Your task to perform on an android device: delete a single message in the gmail app Image 0: 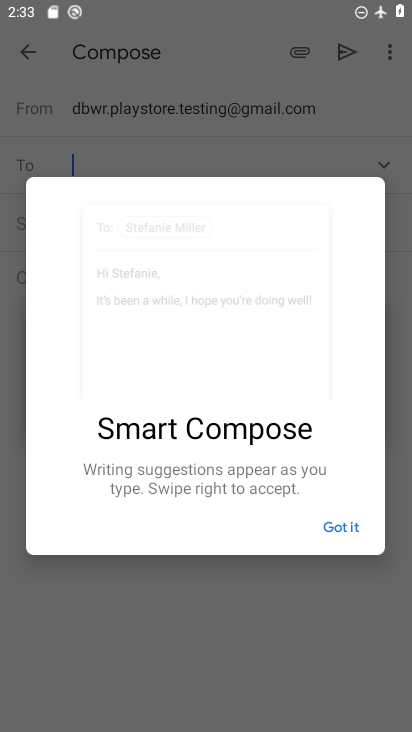
Step 0: press home button
Your task to perform on an android device: delete a single message in the gmail app Image 1: 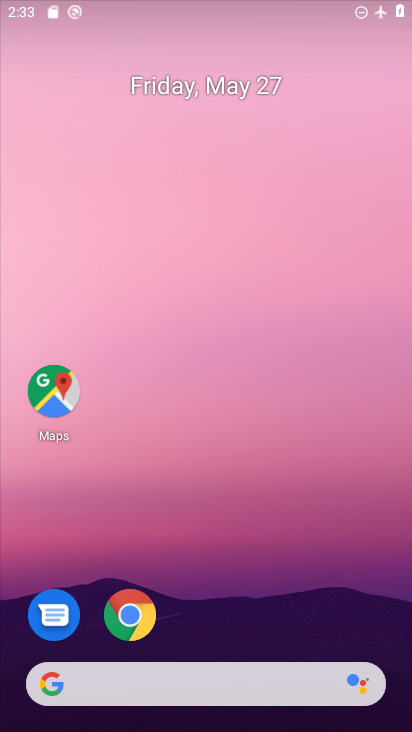
Step 1: drag from (240, 569) to (233, 116)
Your task to perform on an android device: delete a single message in the gmail app Image 2: 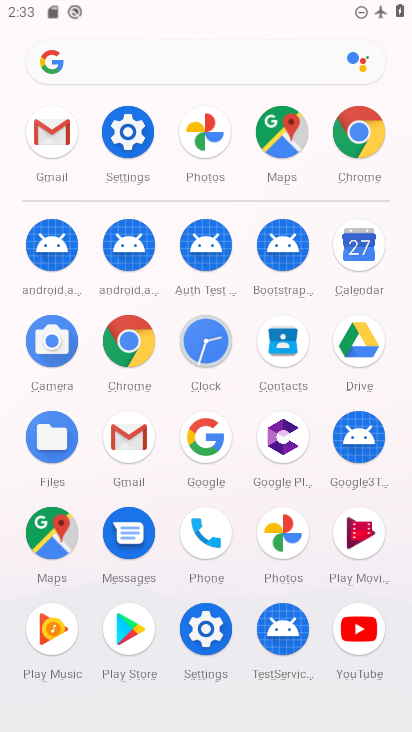
Step 2: click (137, 439)
Your task to perform on an android device: delete a single message in the gmail app Image 3: 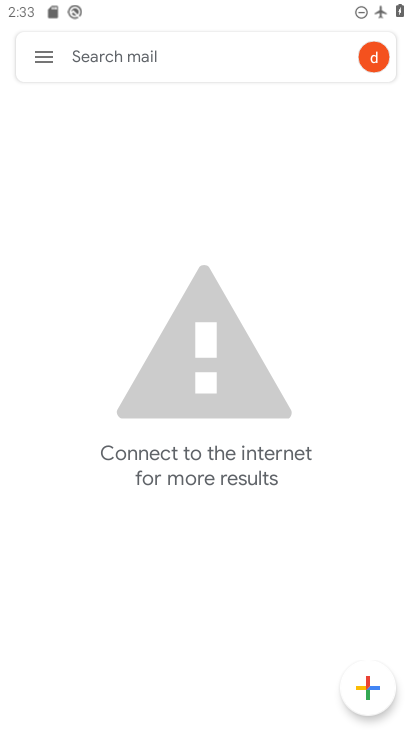
Step 3: click (47, 69)
Your task to perform on an android device: delete a single message in the gmail app Image 4: 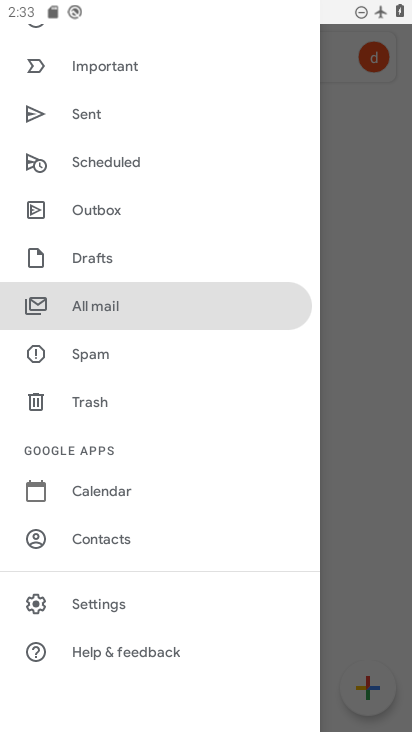
Step 4: click (121, 305)
Your task to perform on an android device: delete a single message in the gmail app Image 5: 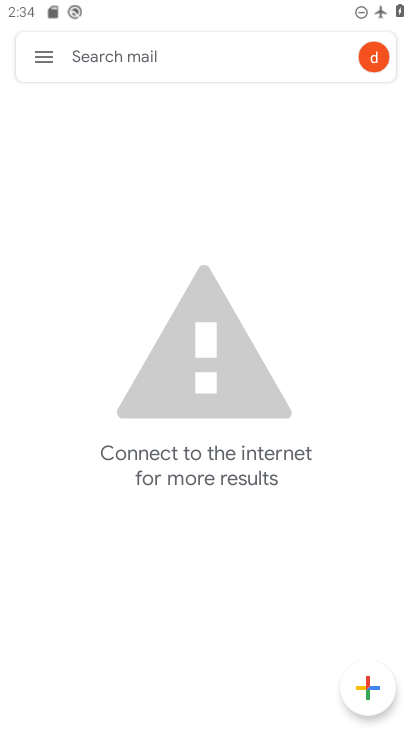
Step 5: task complete